Your task to perform on an android device: What's the weather? Image 0: 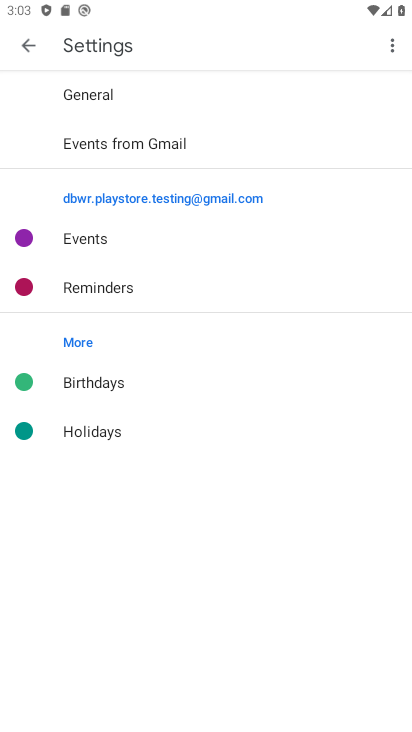
Step 0: press home button
Your task to perform on an android device: What's the weather? Image 1: 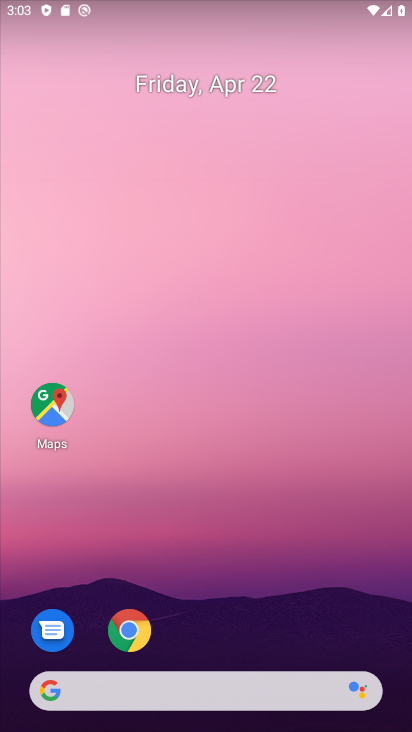
Step 1: click (142, 693)
Your task to perform on an android device: What's the weather? Image 2: 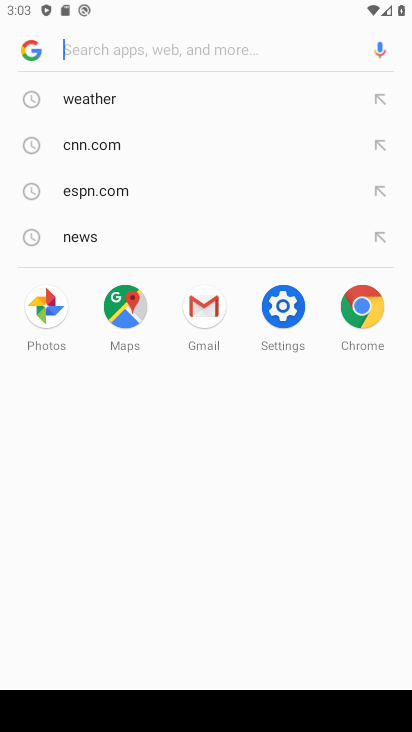
Step 2: click (101, 107)
Your task to perform on an android device: What's the weather? Image 3: 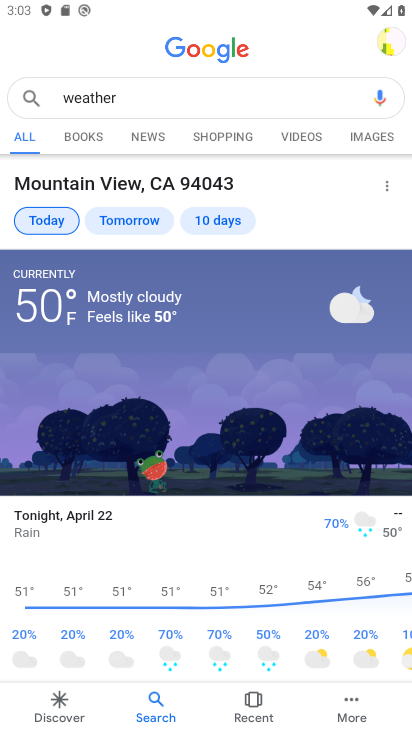
Step 3: task complete